Your task to perform on an android device: turn off priority inbox in the gmail app Image 0: 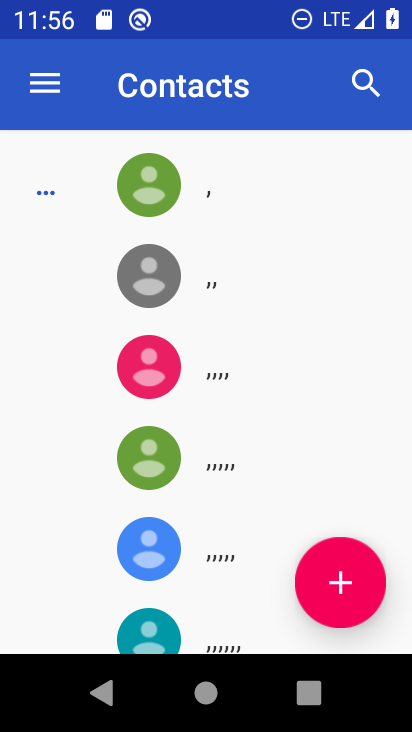
Step 0: press home button
Your task to perform on an android device: turn off priority inbox in the gmail app Image 1: 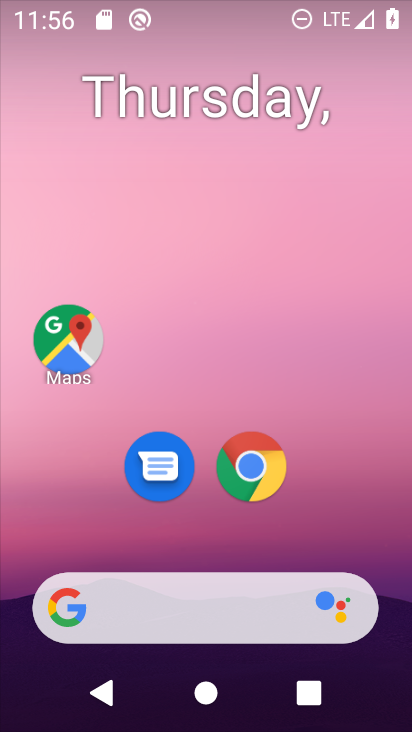
Step 1: drag from (295, 580) to (292, 9)
Your task to perform on an android device: turn off priority inbox in the gmail app Image 2: 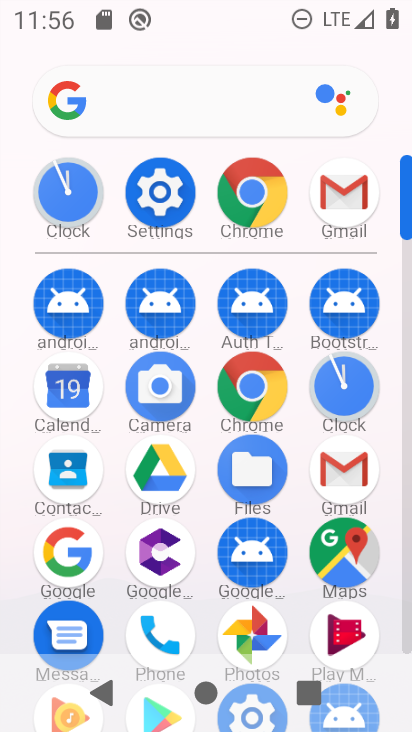
Step 2: click (333, 456)
Your task to perform on an android device: turn off priority inbox in the gmail app Image 3: 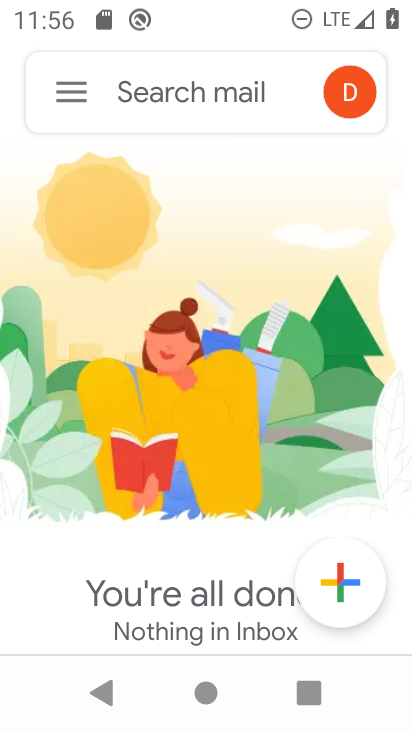
Step 3: click (79, 101)
Your task to perform on an android device: turn off priority inbox in the gmail app Image 4: 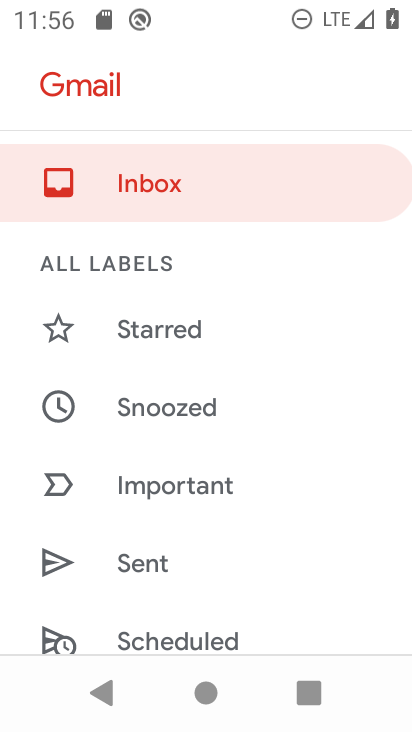
Step 4: drag from (204, 613) to (209, 93)
Your task to perform on an android device: turn off priority inbox in the gmail app Image 5: 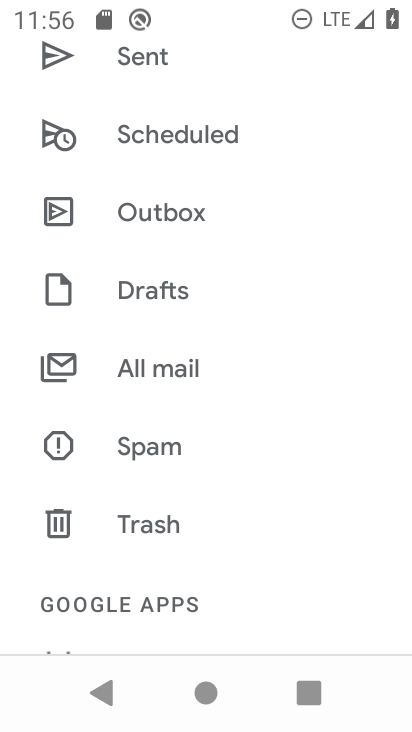
Step 5: drag from (198, 625) to (191, 152)
Your task to perform on an android device: turn off priority inbox in the gmail app Image 6: 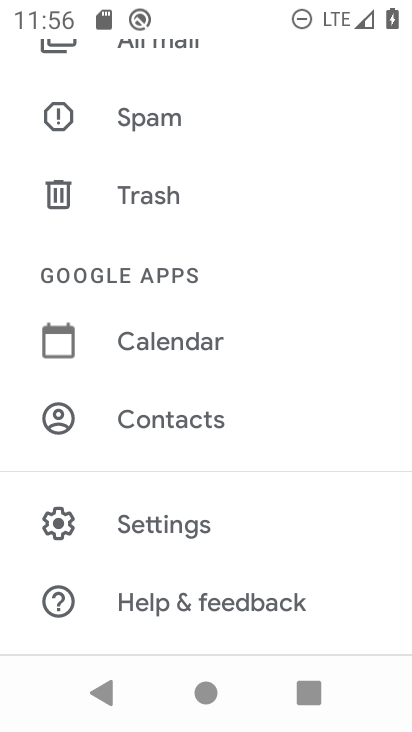
Step 6: click (196, 528)
Your task to perform on an android device: turn off priority inbox in the gmail app Image 7: 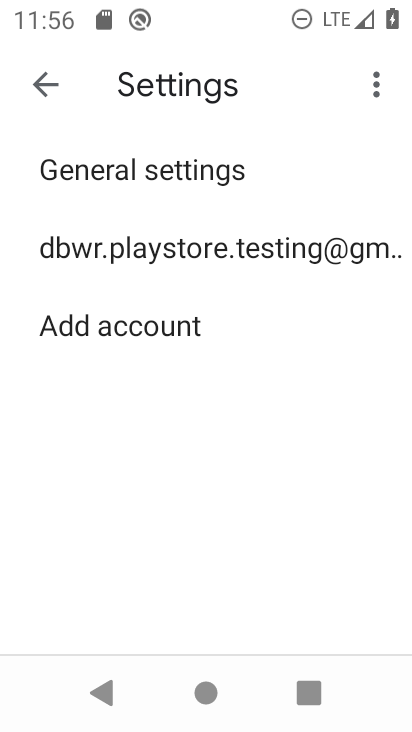
Step 7: click (208, 243)
Your task to perform on an android device: turn off priority inbox in the gmail app Image 8: 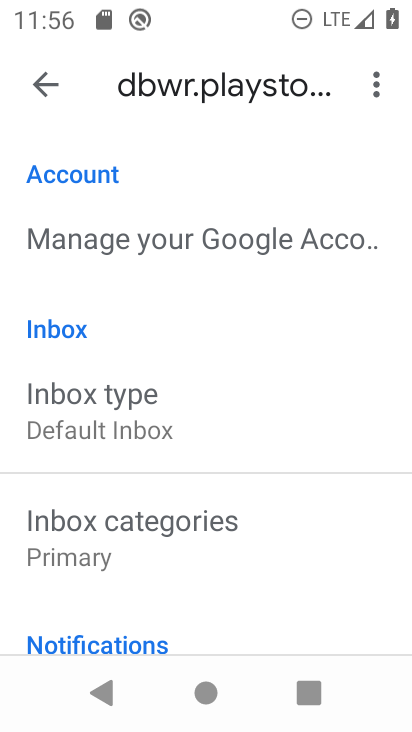
Step 8: click (174, 430)
Your task to perform on an android device: turn off priority inbox in the gmail app Image 9: 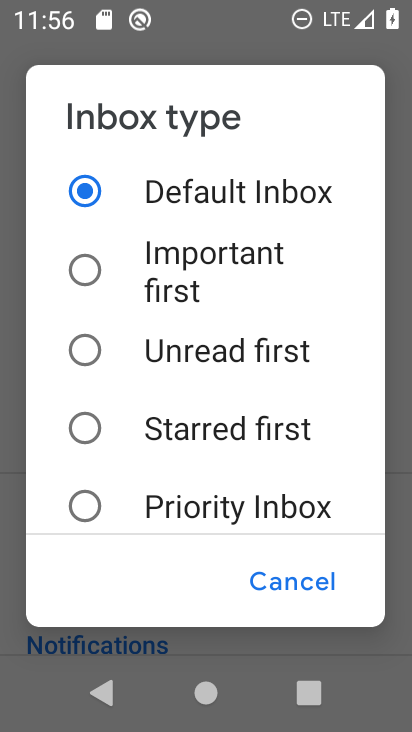
Step 9: click (112, 275)
Your task to perform on an android device: turn off priority inbox in the gmail app Image 10: 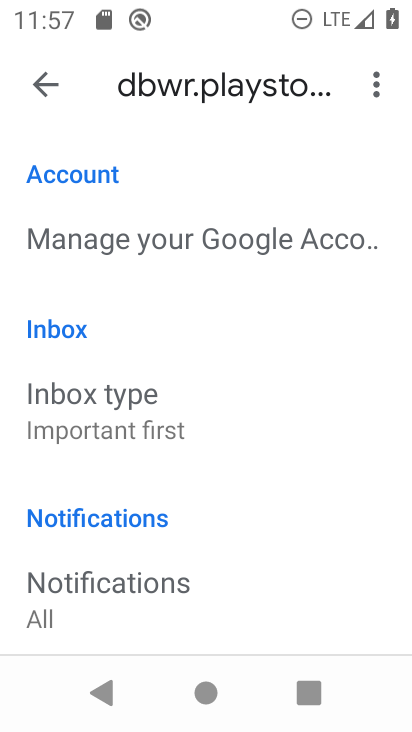
Step 10: task complete